Your task to perform on an android device: turn on showing notifications on the lock screen Image 0: 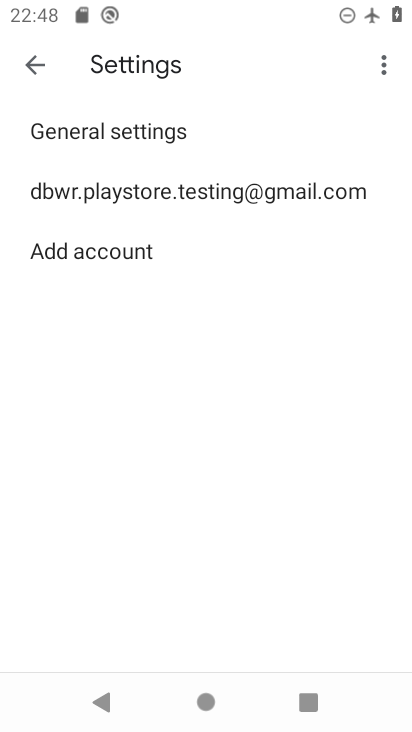
Step 0: press home button
Your task to perform on an android device: turn on showing notifications on the lock screen Image 1: 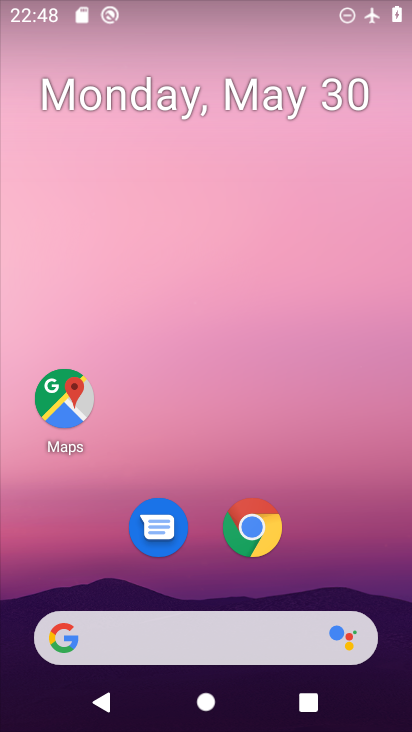
Step 1: drag from (309, 571) to (333, 200)
Your task to perform on an android device: turn on showing notifications on the lock screen Image 2: 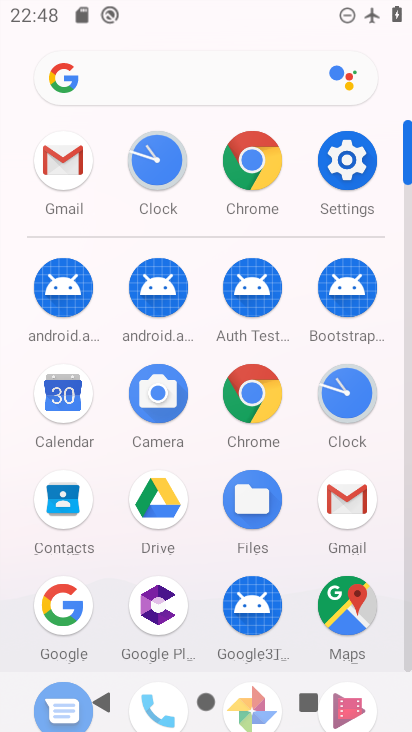
Step 2: click (341, 163)
Your task to perform on an android device: turn on showing notifications on the lock screen Image 3: 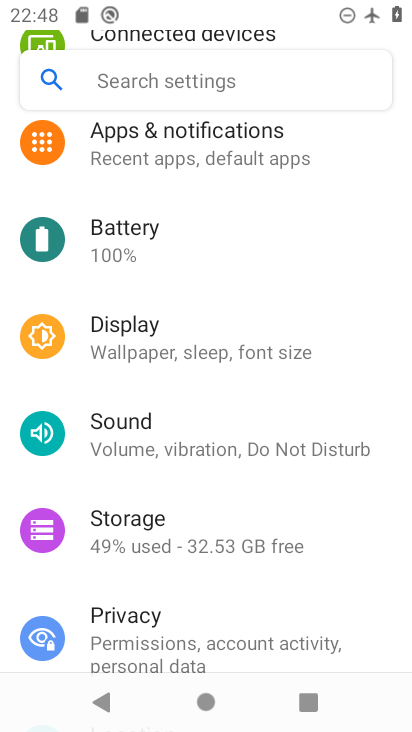
Step 3: drag from (260, 203) to (262, 321)
Your task to perform on an android device: turn on showing notifications on the lock screen Image 4: 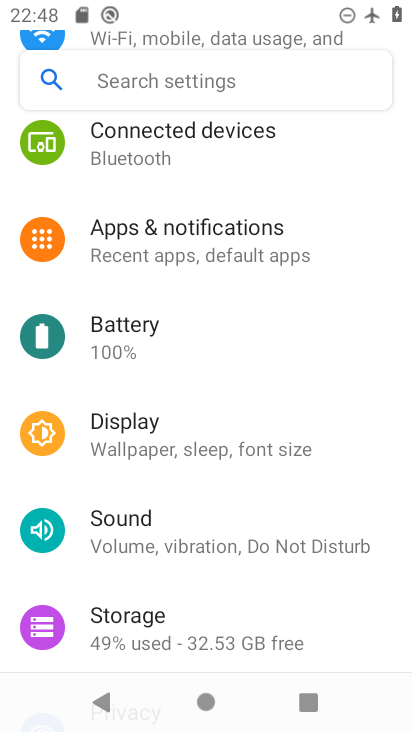
Step 4: drag from (186, 188) to (212, 543)
Your task to perform on an android device: turn on showing notifications on the lock screen Image 5: 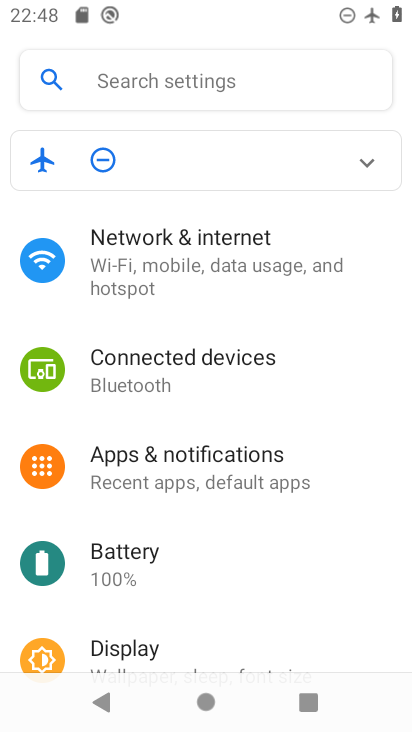
Step 5: click (237, 459)
Your task to perform on an android device: turn on showing notifications on the lock screen Image 6: 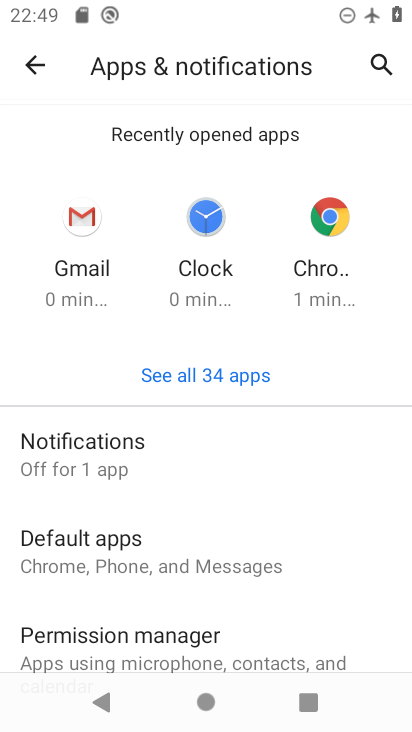
Step 6: click (153, 467)
Your task to perform on an android device: turn on showing notifications on the lock screen Image 7: 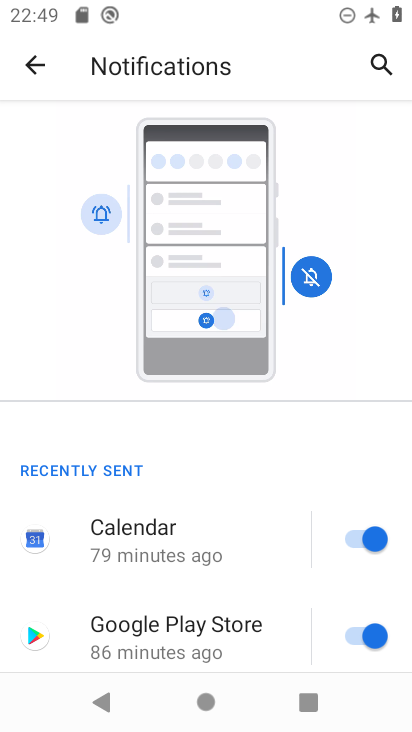
Step 7: drag from (226, 601) to (267, 245)
Your task to perform on an android device: turn on showing notifications on the lock screen Image 8: 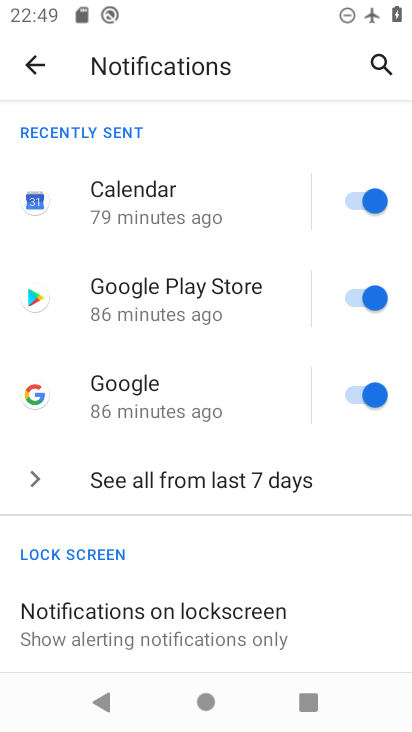
Step 8: drag from (245, 485) to (269, 344)
Your task to perform on an android device: turn on showing notifications on the lock screen Image 9: 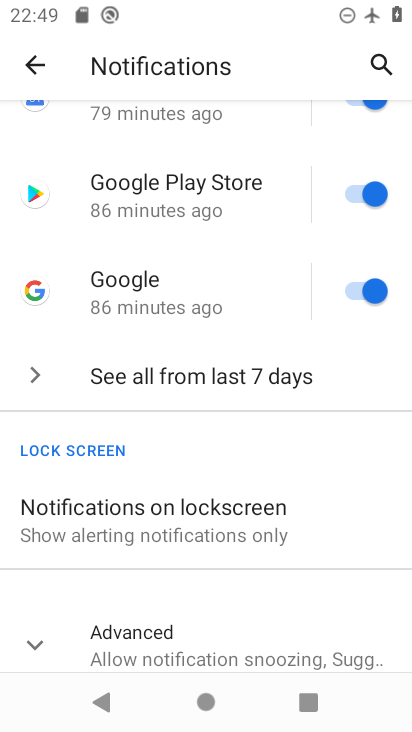
Step 9: click (183, 529)
Your task to perform on an android device: turn on showing notifications on the lock screen Image 10: 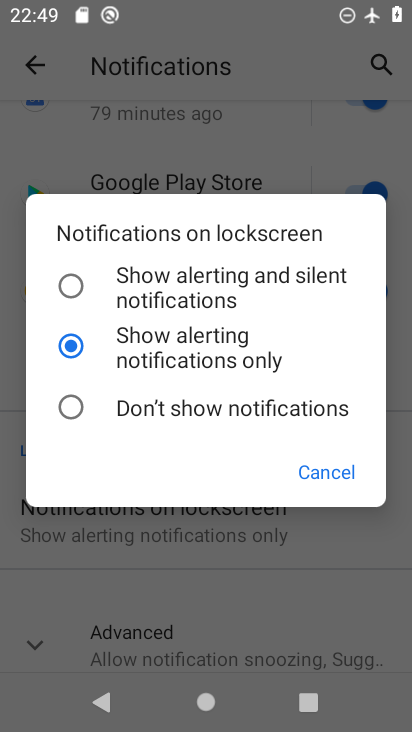
Step 10: click (210, 272)
Your task to perform on an android device: turn on showing notifications on the lock screen Image 11: 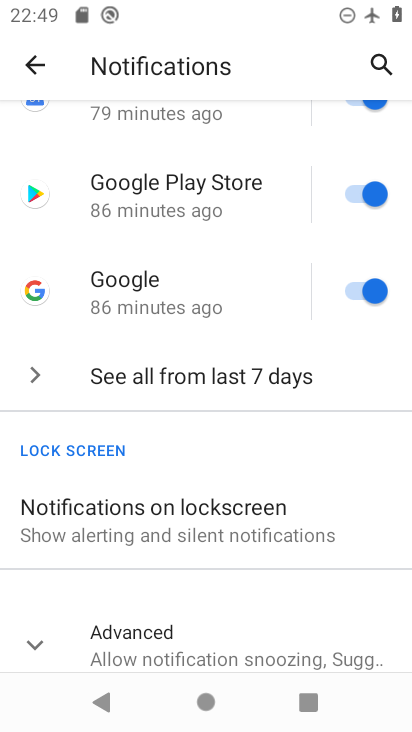
Step 11: task complete